Your task to perform on an android device: Go to sound settings Image 0: 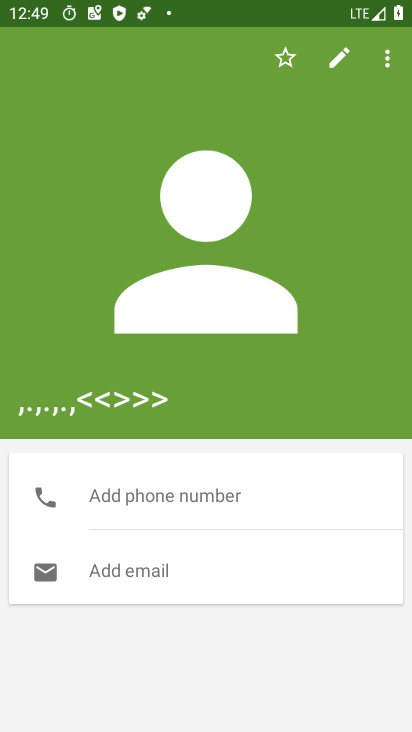
Step 0: press home button
Your task to perform on an android device: Go to sound settings Image 1: 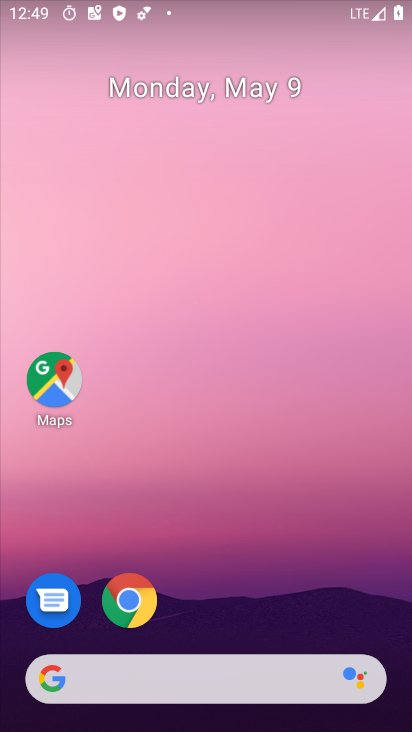
Step 1: drag from (227, 615) to (269, 191)
Your task to perform on an android device: Go to sound settings Image 2: 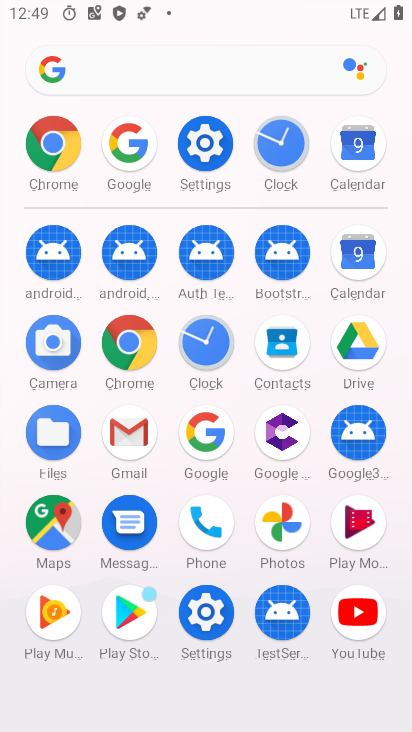
Step 2: click (200, 626)
Your task to perform on an android device: Go to sound settings Image 3: 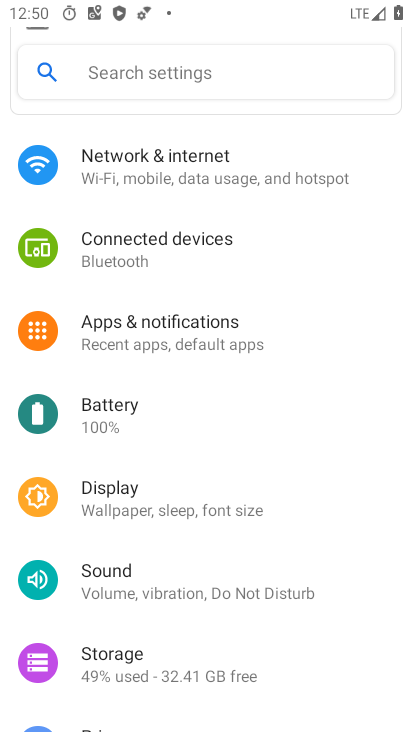
Step 3: click (139, 606)
Your task to perform on an android device: Go to sound settings Image 4: 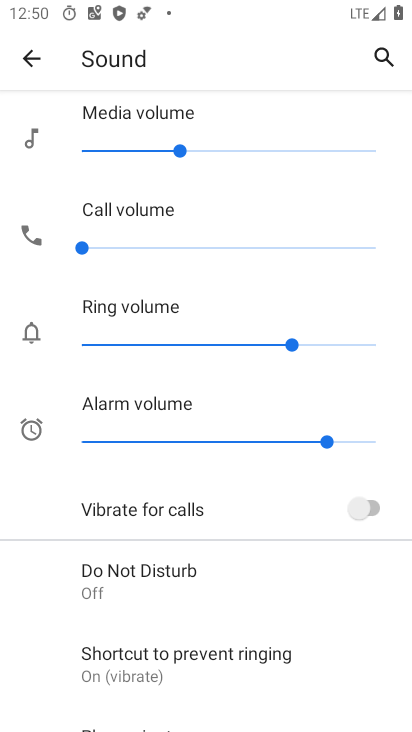
Step 4: task complete